Your task to perform on an android device: Open Google Chrome Image 0: 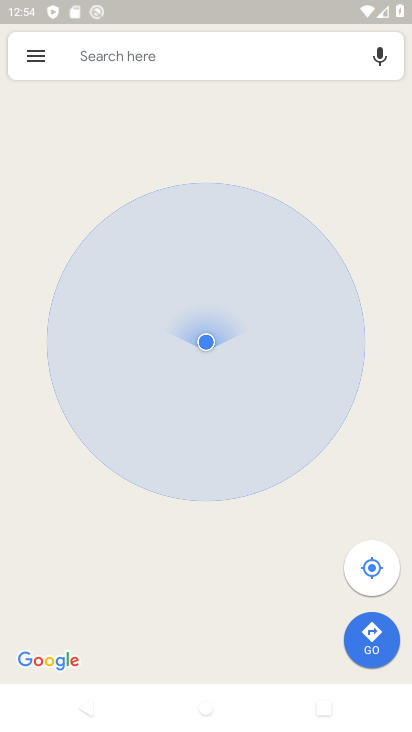
Step 0: press home button
Your task to perform on an android device: Open Google Chrome Image 1: 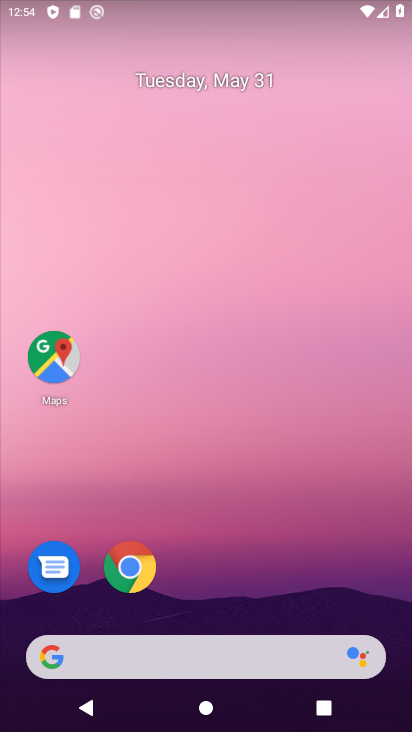
Step 1: click (126, 568)
Your task to perform on an android device: Open Google Chrome Image 2: 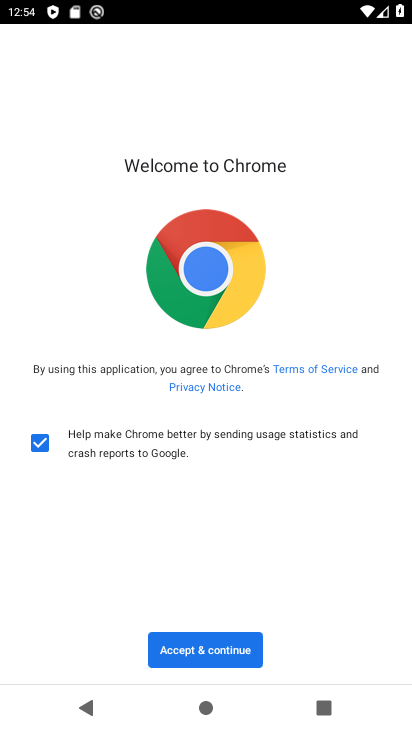
Step 2: click (224, 662)
Your task to perform on an android device: Open Google Chrome Image 3: 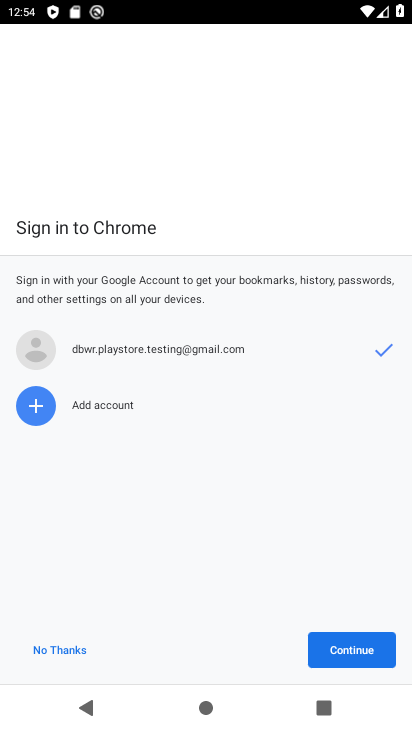
Step 3: click (354, 658)
Your task to perform on an android device: Open Google Chrome Image 4: 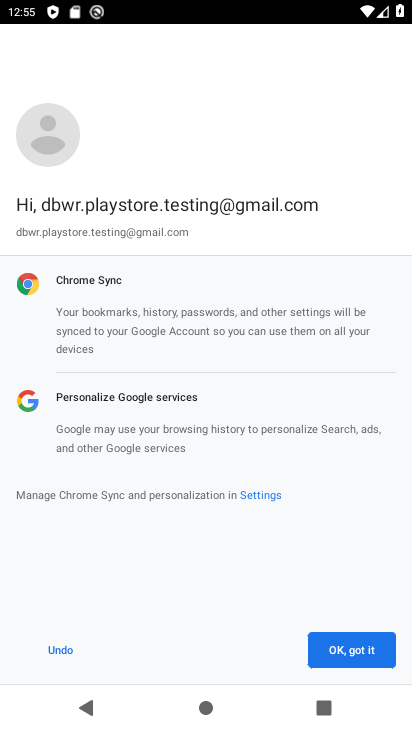
Step 4: click (332, 644)
Your task to perform on an android device: Open Google Chrome Image 5: 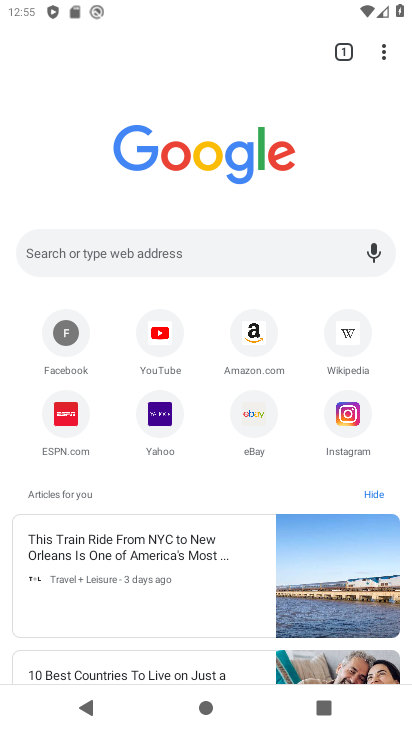
Step 5: task complete